Your task to perform on an android device: Turn on the flashlight Image 0: 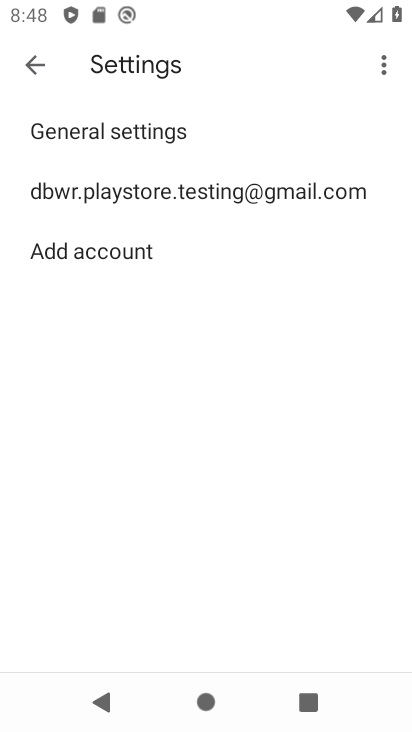
Step 0: press home button
Your task to perform on an android device: Turn on the flashlight Image 1: 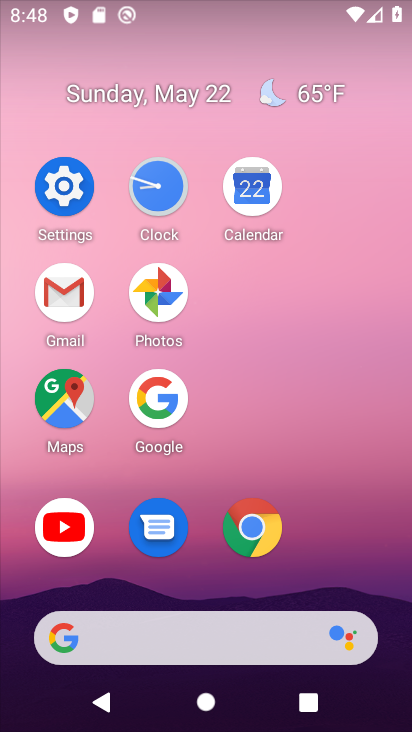
Step 1: click (275, 496)
Your task to perform on an android device: Turn on the flashlight Image 2: 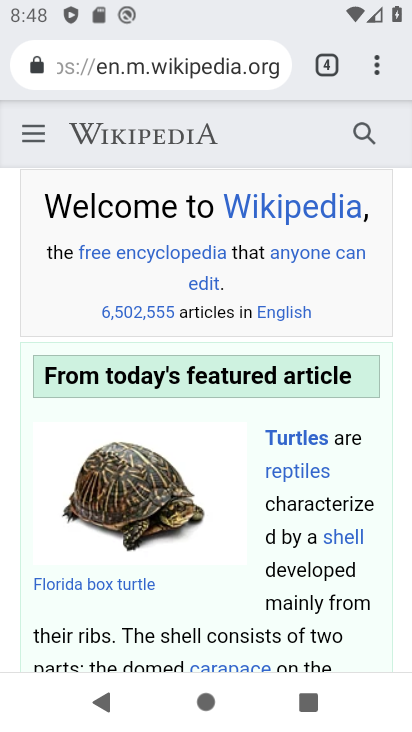
Step 2: click (384, 81)
Your task to perform on an android device: Turn on the flashlight Image 3: 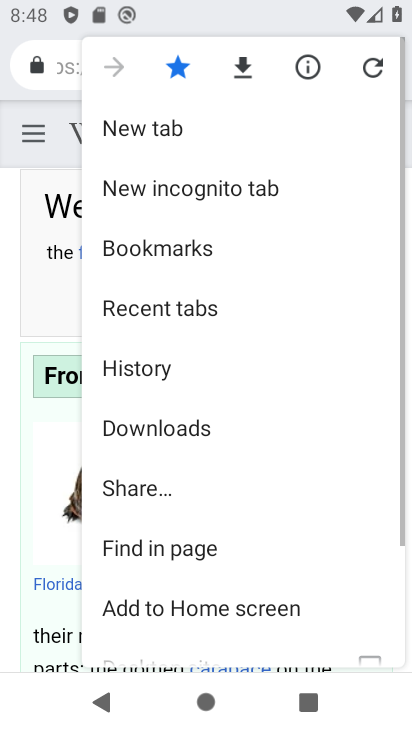
Step 3: drag from (276, 461) to (258, 110)
Your task to perform on an android device: Turn on the flashlight Image 4: 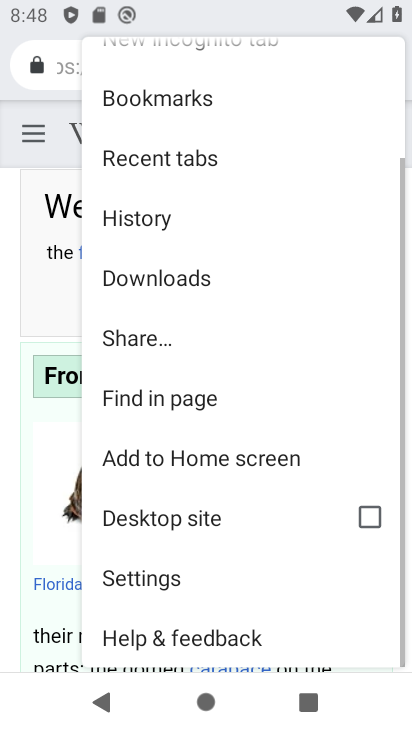
Step 4: click (210, 563)
Your task to perform on an android device: Turn on the flashlight Image 5: 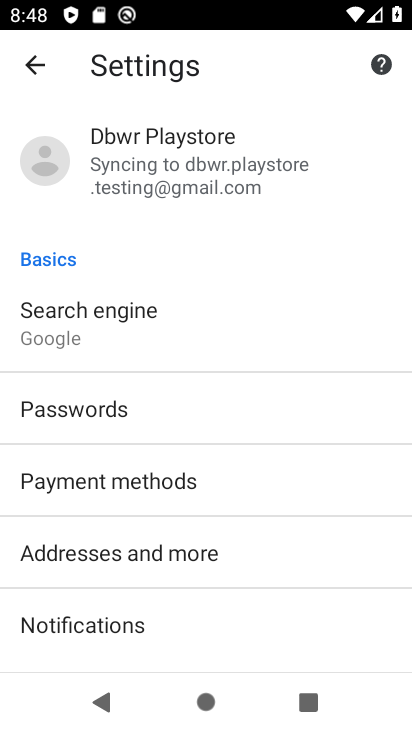
Step 5: task complete